Your task to perform on an android device: What's the price of the LG TV? Image 0: 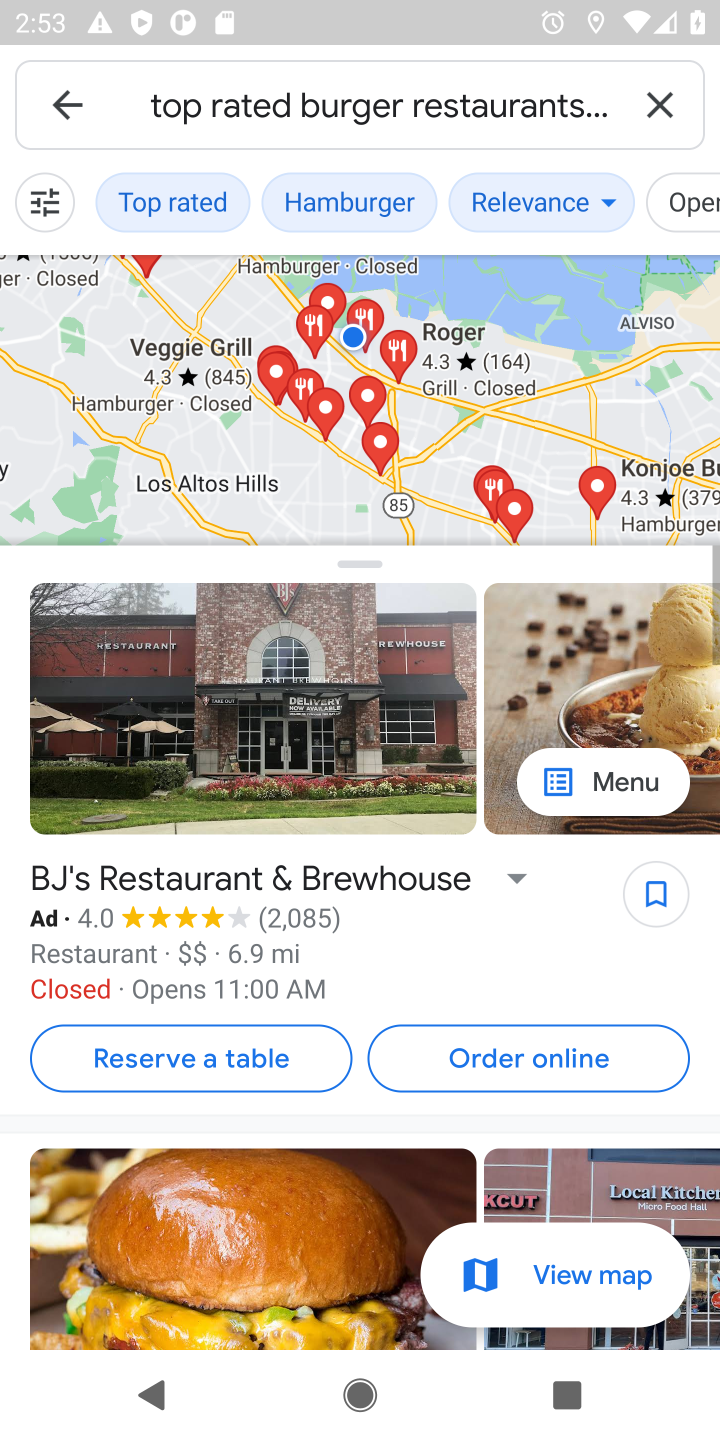
Step 0: press home button
Your task to perform on an android device: What's the price of the LG TV? Image 1: 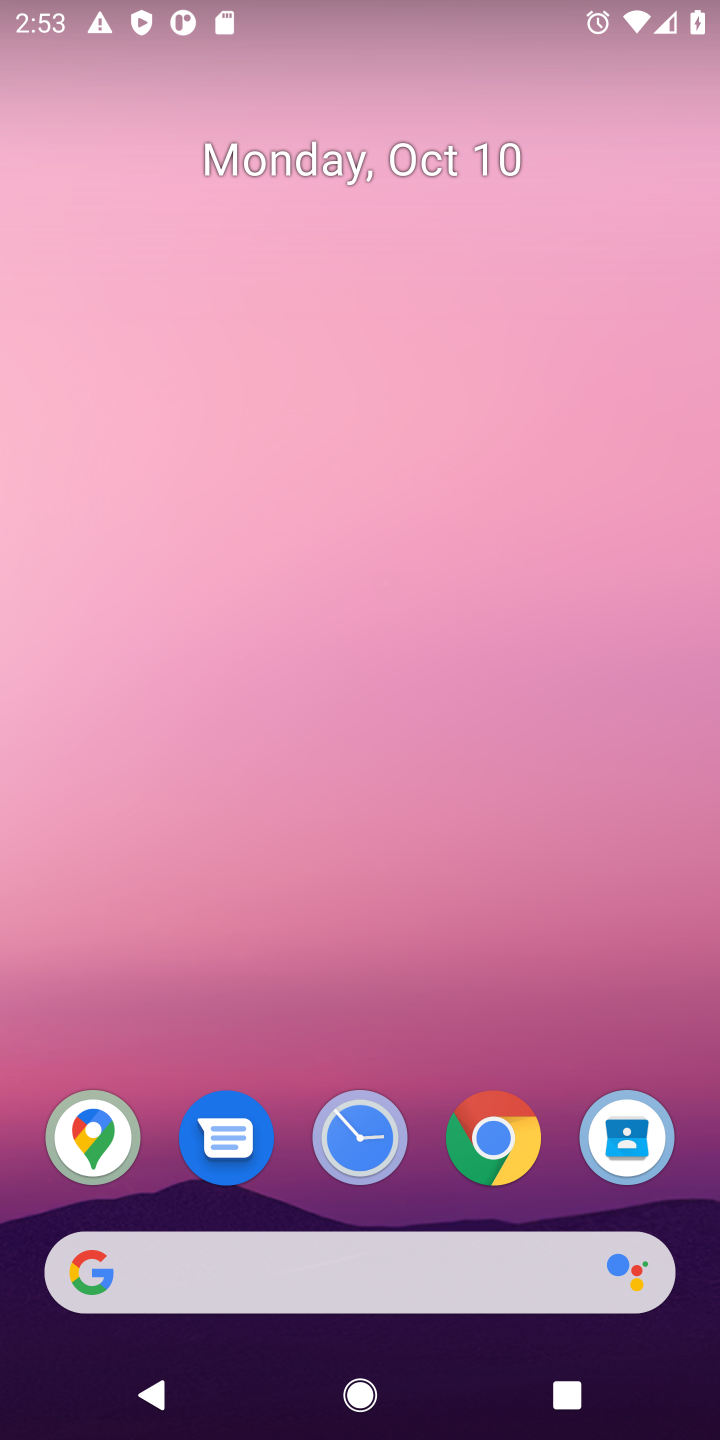
Step 1: click (278, 1251)
Your task to perform on an android device: What's the price of the LG TV? Image 2: 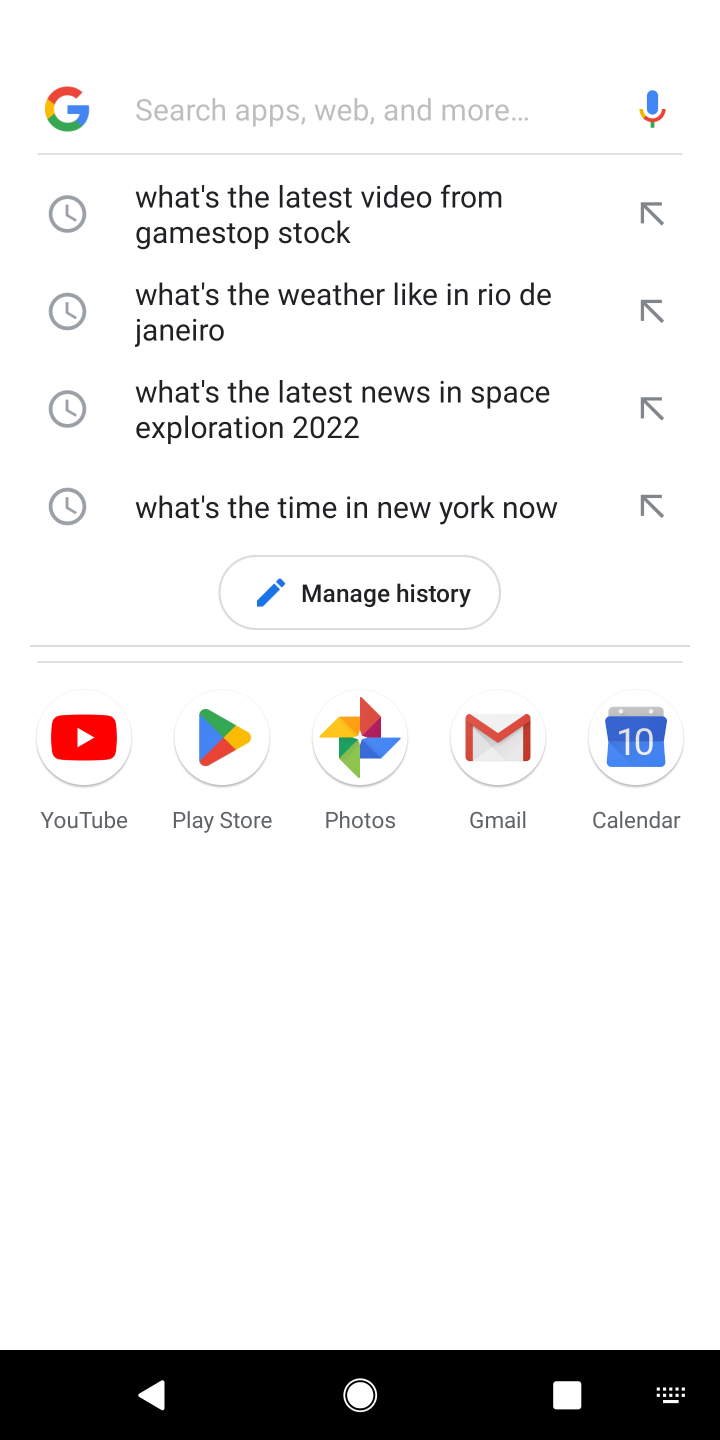
Step 2: type "whatsnthe price of the lg tv?"
Your task to perform on an android device: What's the price of the LG TV? Image 3: 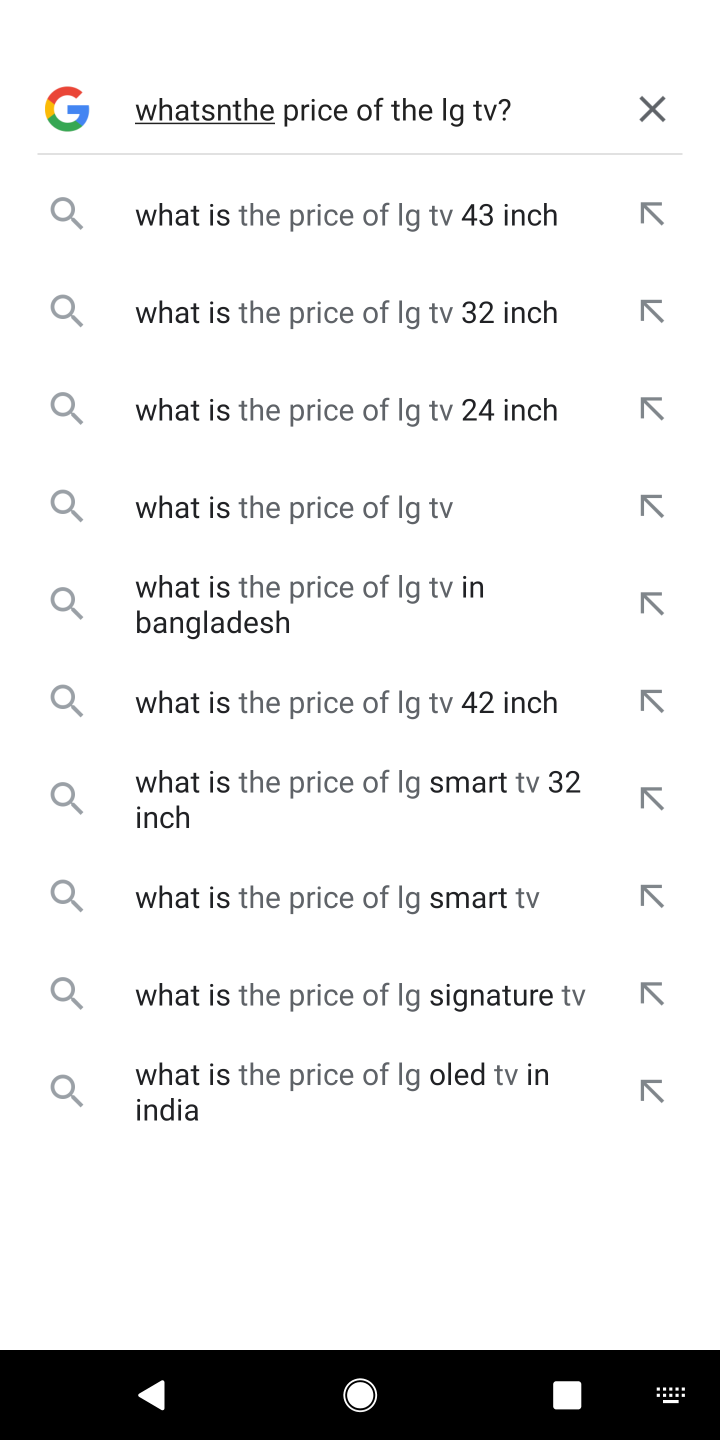
Step 3: click (270, 495)
Your task to perform on an android device: What's the price of the LG TV? Image 4: 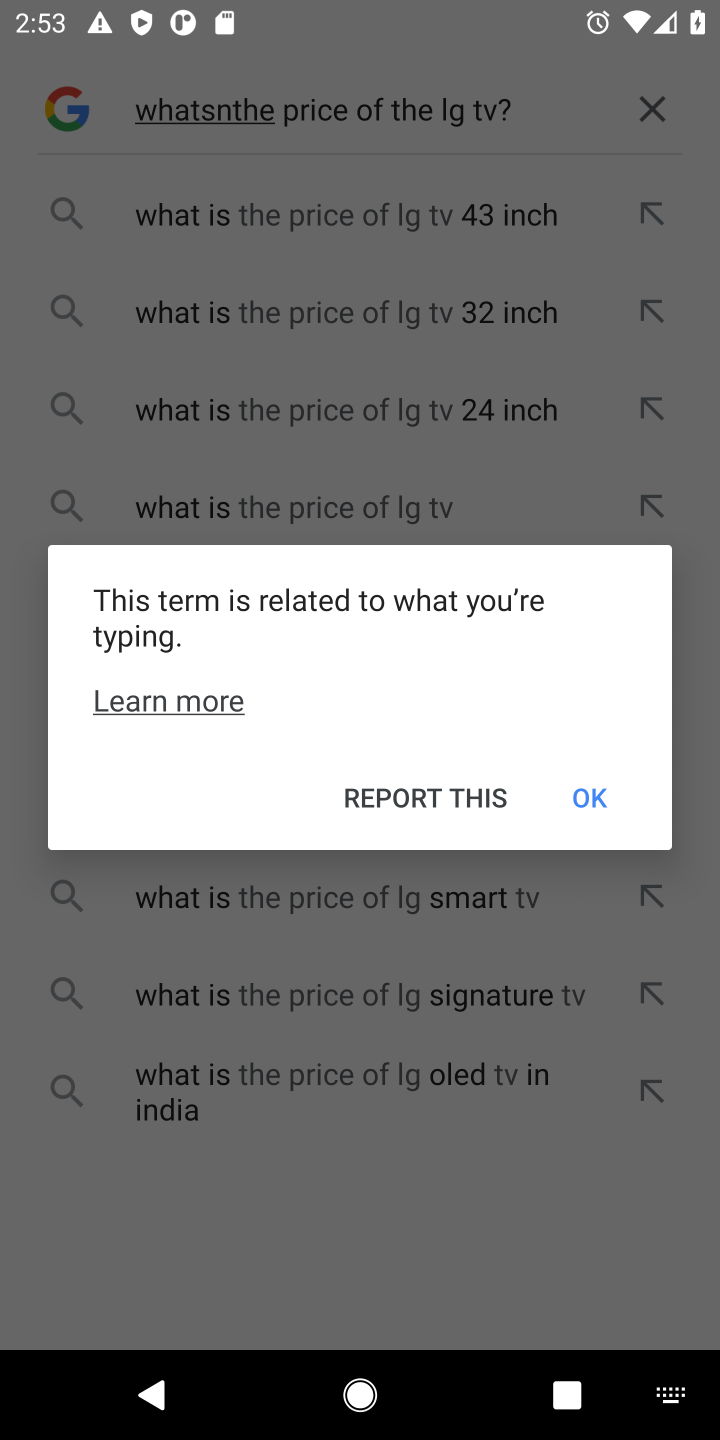
Step 4: click (585, 785)
Your task to perform on an android device: What's the price of the LG TV? Image 5: 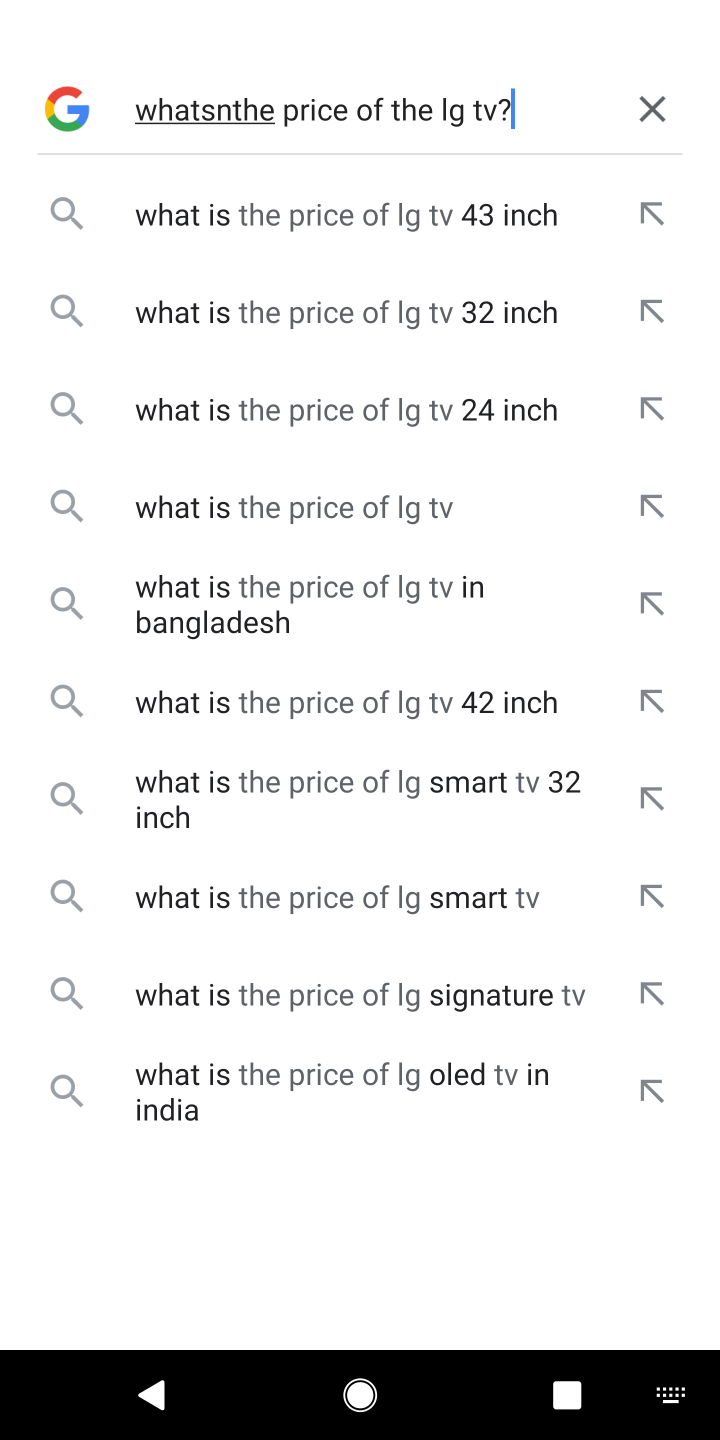
Step 5: click (244, 512)
Your task to perform on an android device: What's the price of the LG TV? Image 6: 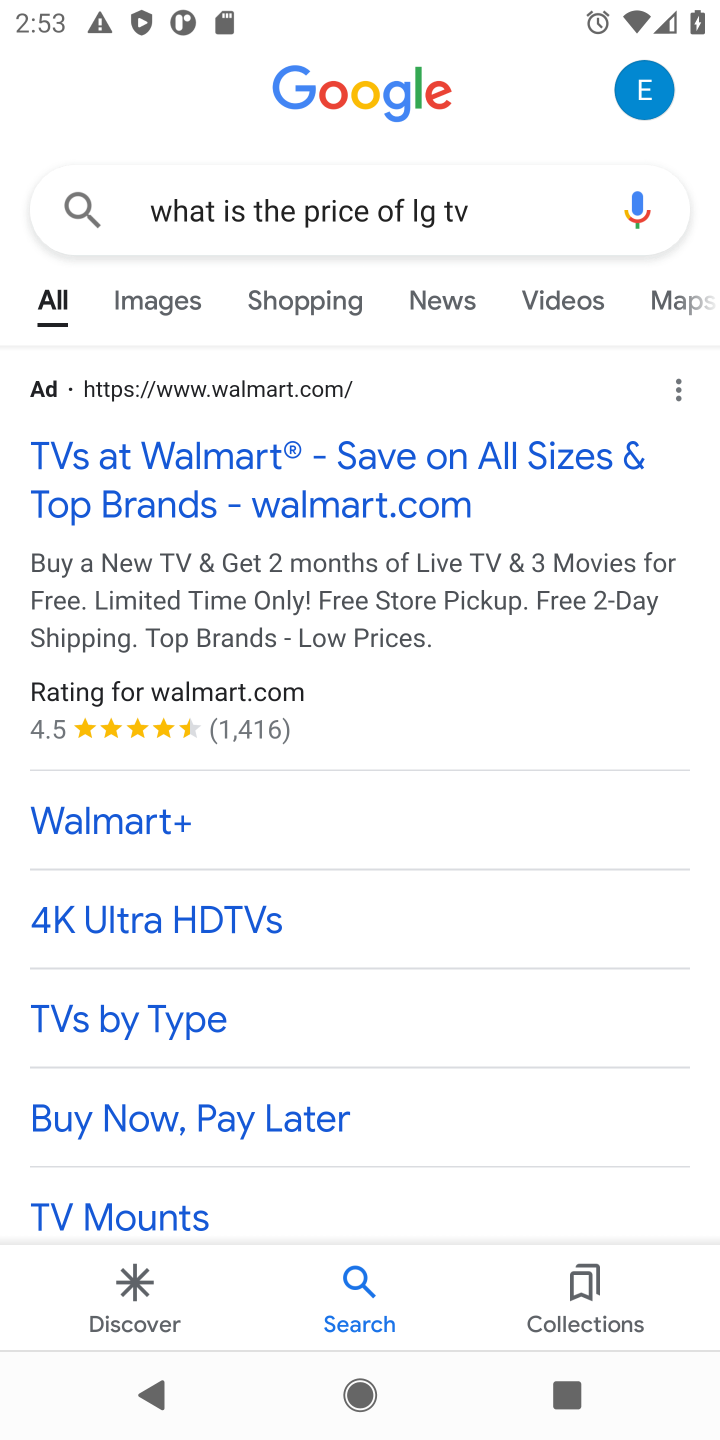
Step 6: click (266, 472)
Your task to perform on an android device: What's the price of the LG TV? Image 7: 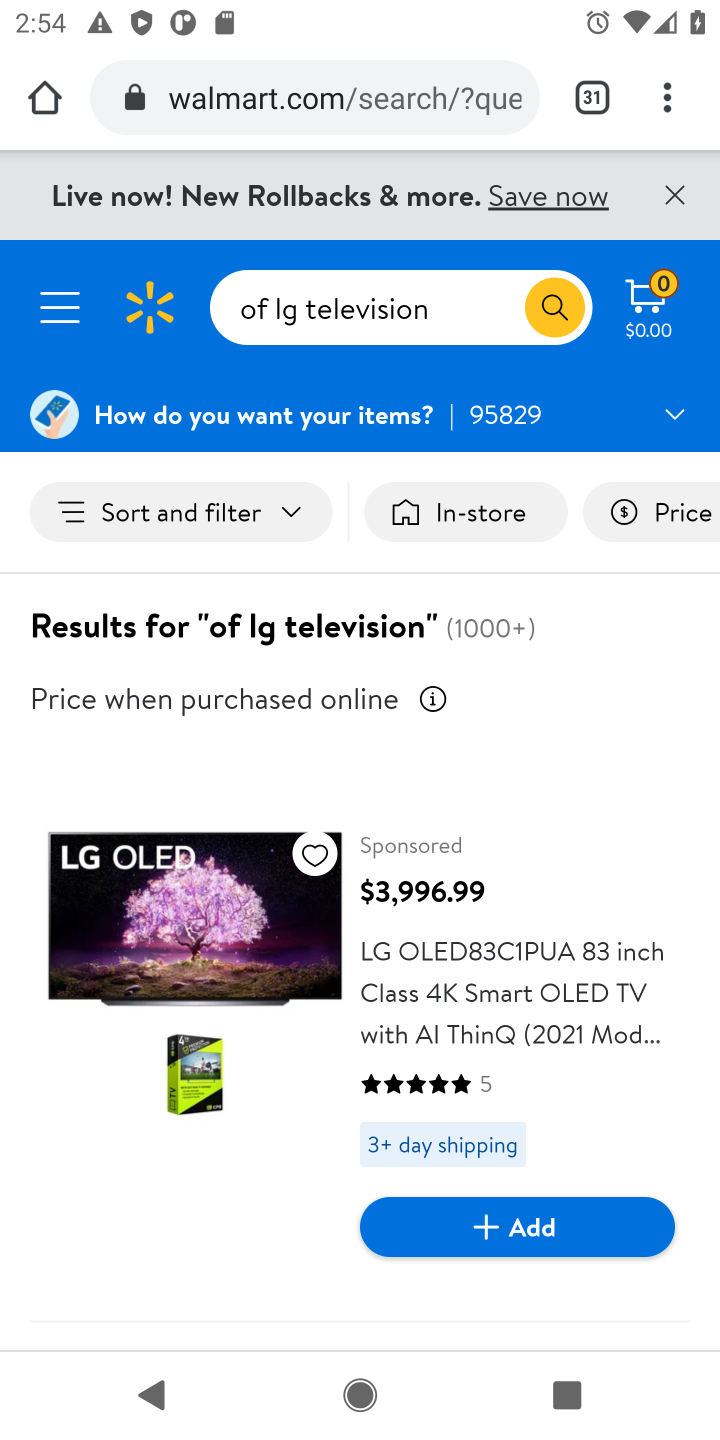
Step 7: task complete